Your task to perform on an android device: toggle notifications settings in the gmail app Image 0: 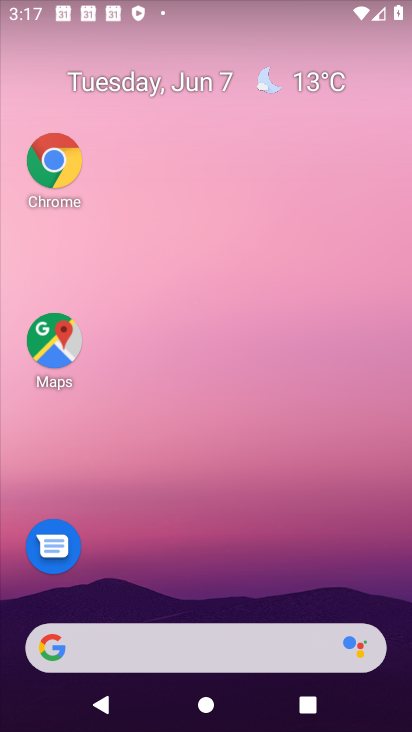
Step 0: drag from (307, 522) to (0, 328)
Your task to perform on an android device: toggle notifications settings in the gmail app Image 1: 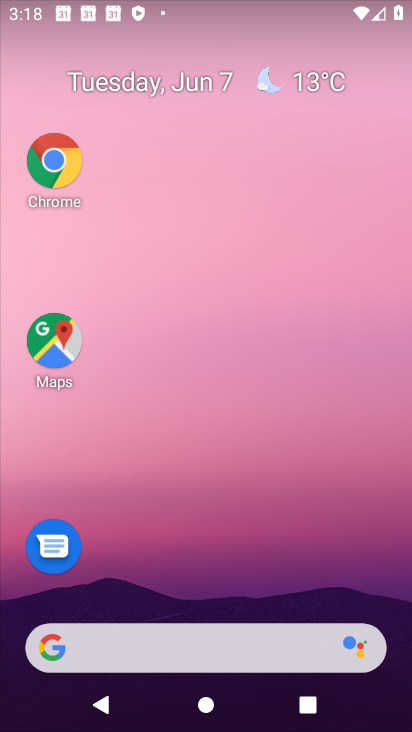
Step 1: drag from (195, 585) to (278, 69)
Your task to perform on an android device: toggle notifications settings in the gmail app Image 2: 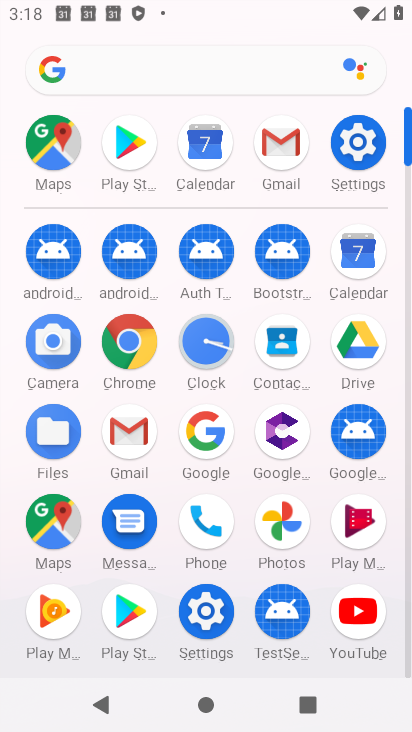
Step 2: click (129, 423)
Your task to perform on an android device: toggle notifications settings in the gmail app Image 3: 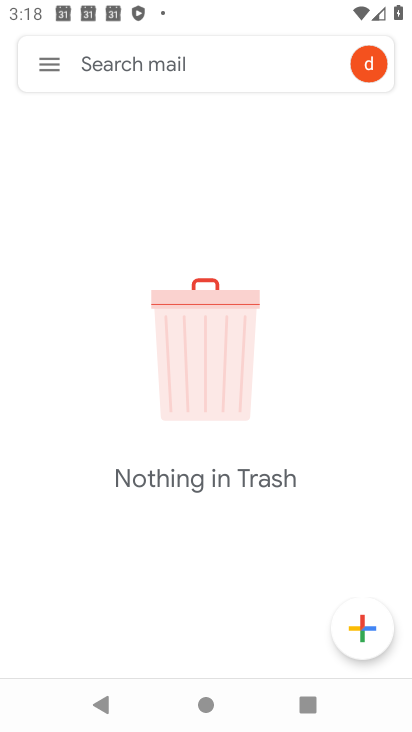
Step 3: click (48, 72)
Your task to perform on an android device: toggle notifications settings in the gmail app Image 4: 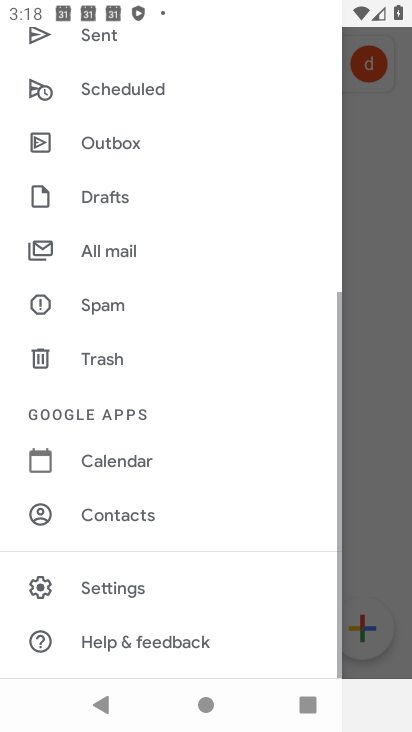
Step 4: drag from (165, 554) to (264, 168)
Your task to perform on an android device: toggle notifications settings in the gmail app Image 5: 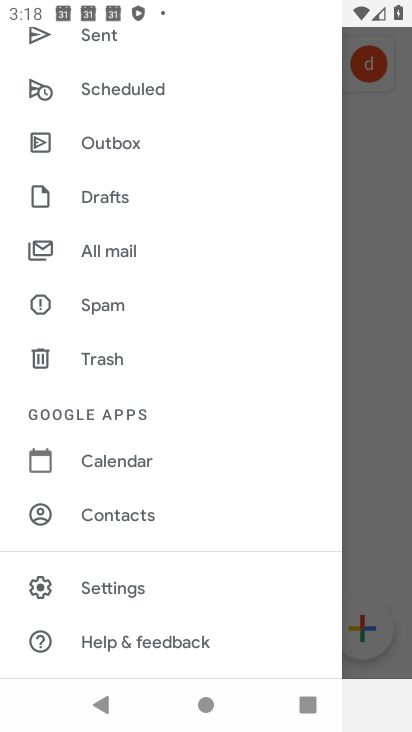
Step 5: click (148, 589)
Your task to perform on an android device: toggle notifications settings in the gmail app Image 6: 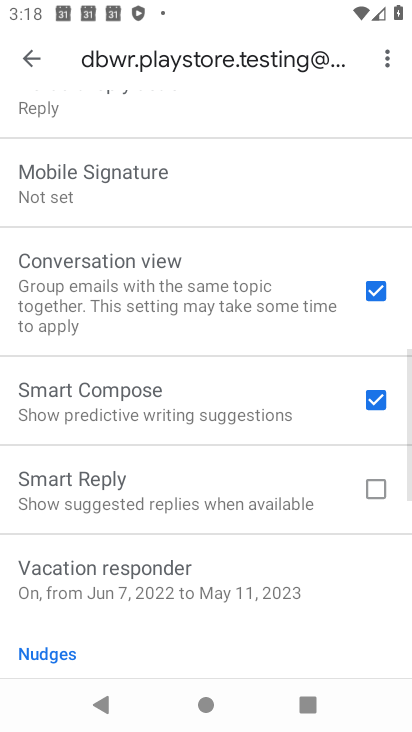
Step 6: drag from (179, 518) to (238, 194)
Your task to perform on an android device: toggle notifications settings in the gmail app Image 7: 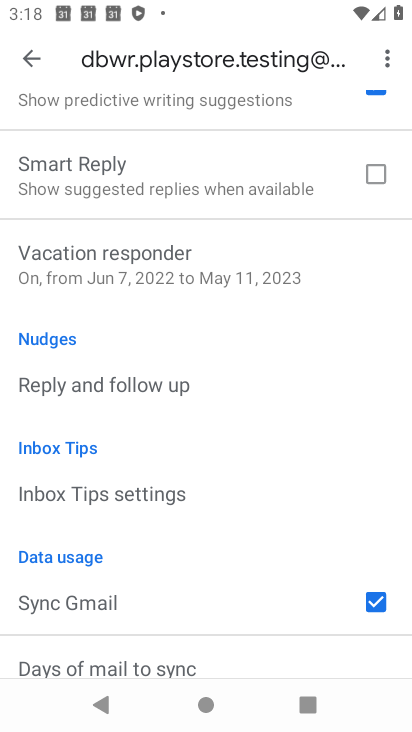
Step 7: drag from (198, 247) to (231, 731)
Your task to perform on an android device: toggle notifications settings in the gmail app Image 8: 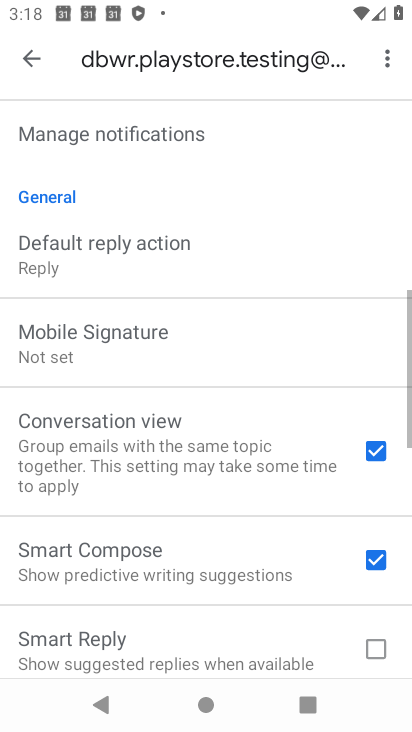
Step 8: drag from (179, 173) to (212, 484)
Your task to perform on an android device: toggle notifications settings in the gmail app Image 9: 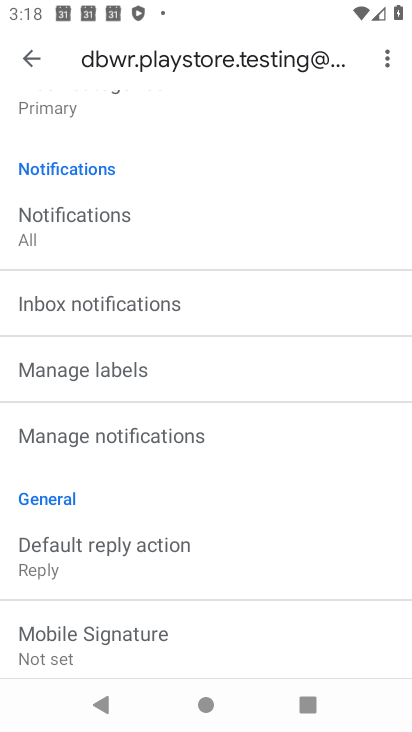
Step 9: click (140, 416)
Your task to perform on an android device: toggle notifications settings in the gmail app Image 10: 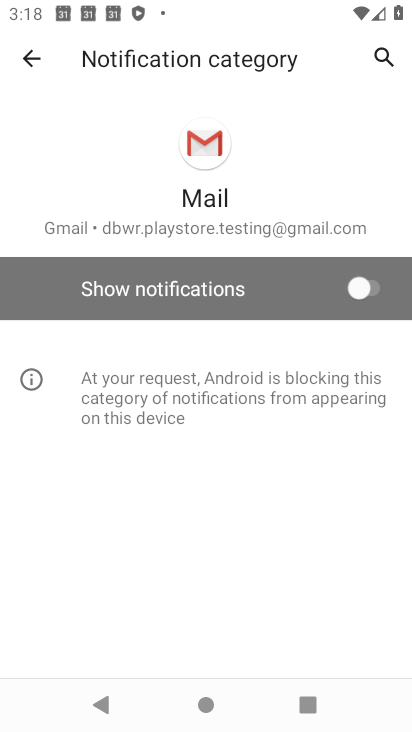
Step 10: click (312, 279)
Your task to perform on an android device: toggle notifications settings in the gmail app Image 11: 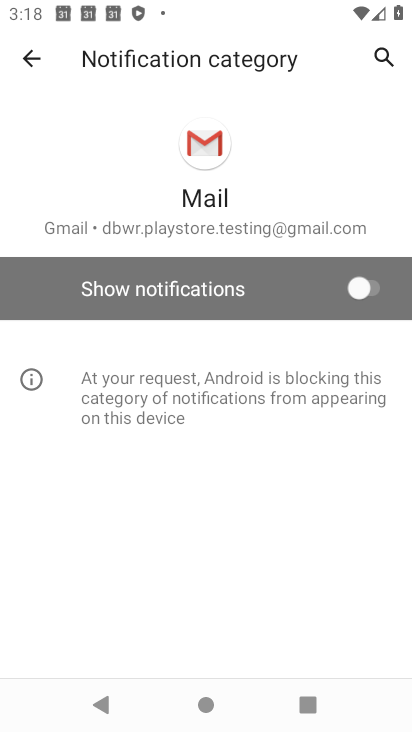
Step 11: task complete